Your task to perform on an android device: Open internet settings Image 0: 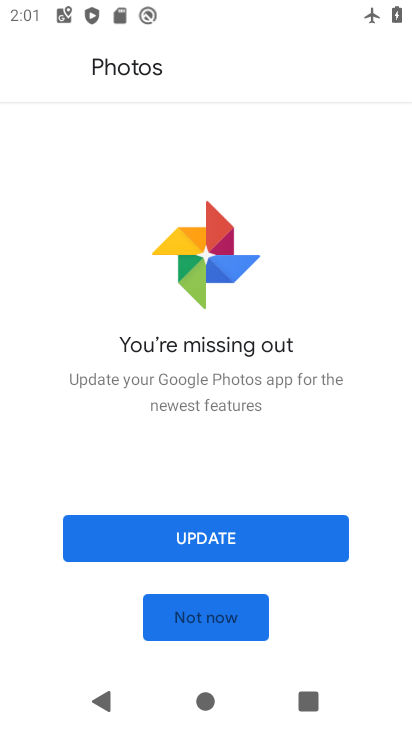
Step 0: press home button
Your task to perform on an android device: Open internet settings Image 1: 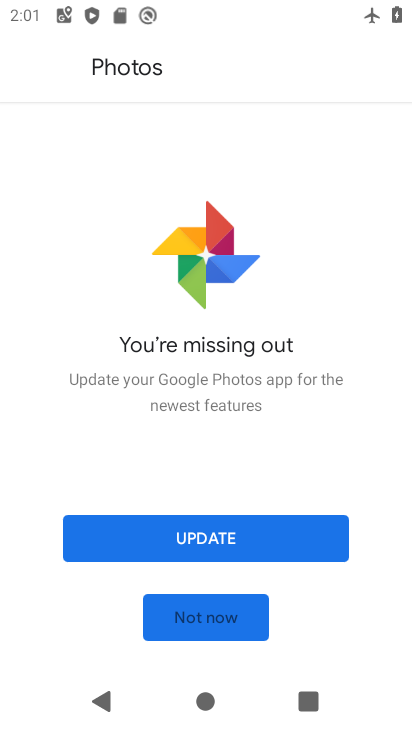
Step 1: press home button
Your task to perform on an android device: Open internet settings Image 2: 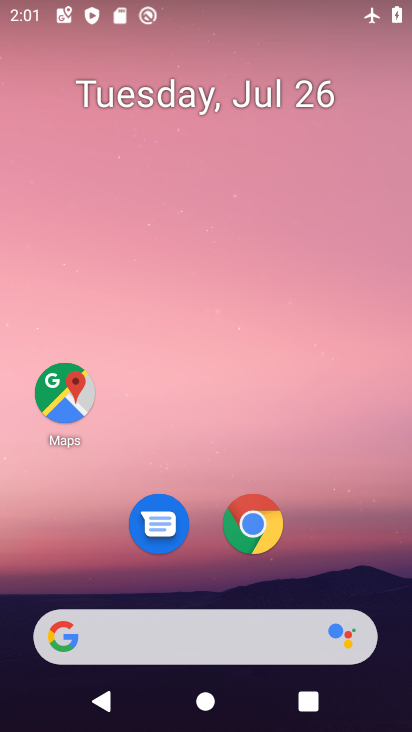
Step 2: drag from (336, 571) to (358, 57)
Your task to perform on an android device: Open internet settings Image 3: 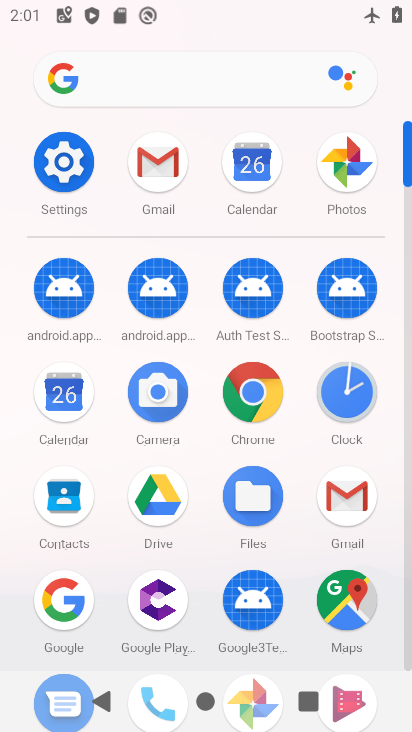
Step 3: click (79, 165)
Your task to perform on an android device: Open internet settings Image 4: 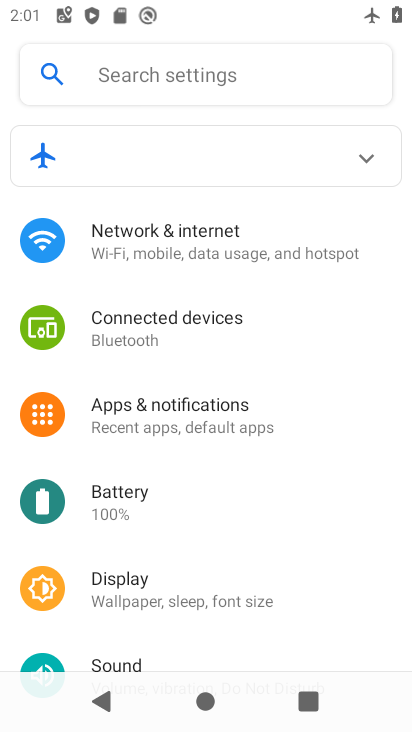
Step 4: click (169, 239)
Your task to perform on an android device: Open internet settings Image 5: 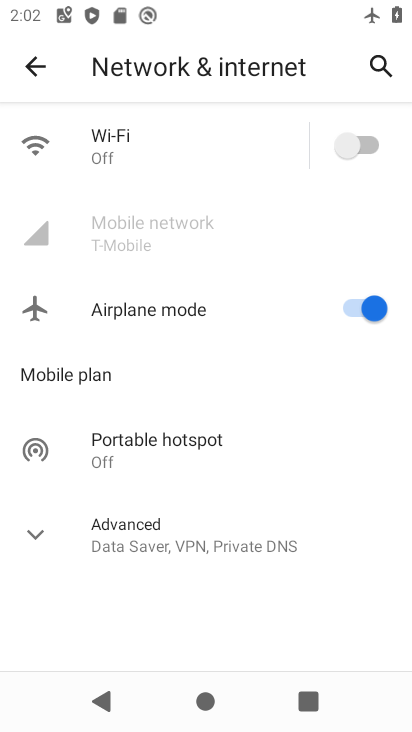
Step 5: task complete